Your task to perform on an android device: turn off translation in the chrome app Image 0: 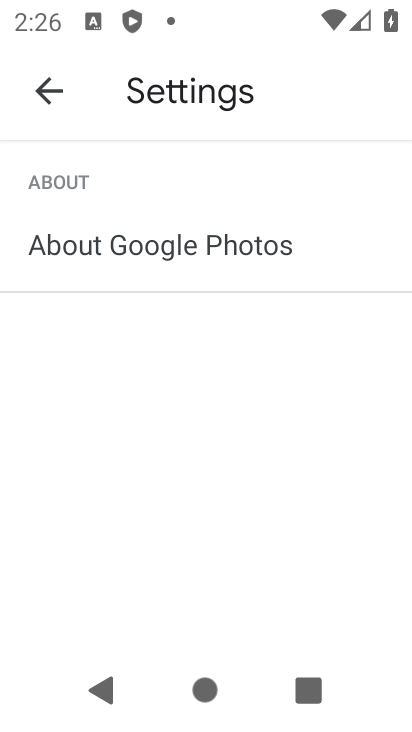
Step 0: press home button
Your task to perform on an android device: turn off translation in the chrome app Image 1: 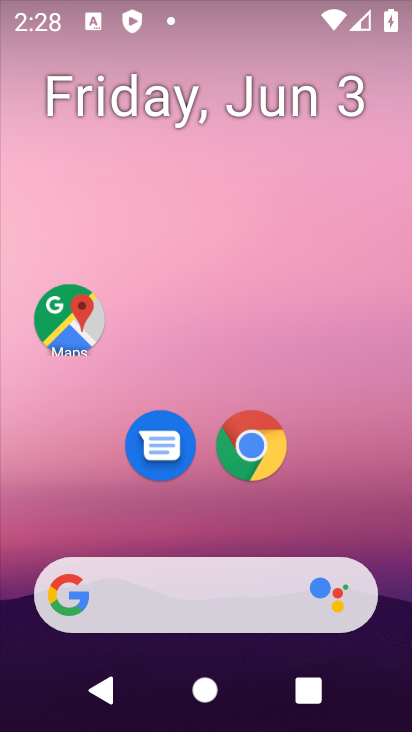
Step 1: click (261, 445)
Your task to perform on an android device: turn off translation in the chrome app Image 2: 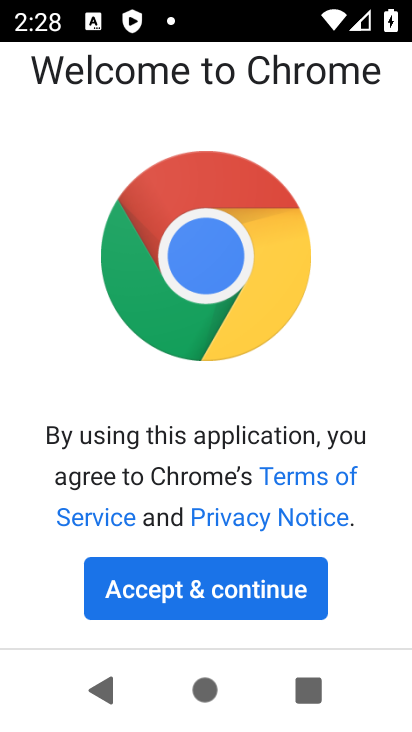
Step 2: click (165, 621)
Your task to perform on an android device: turn off translation in the chrome app Image 3: 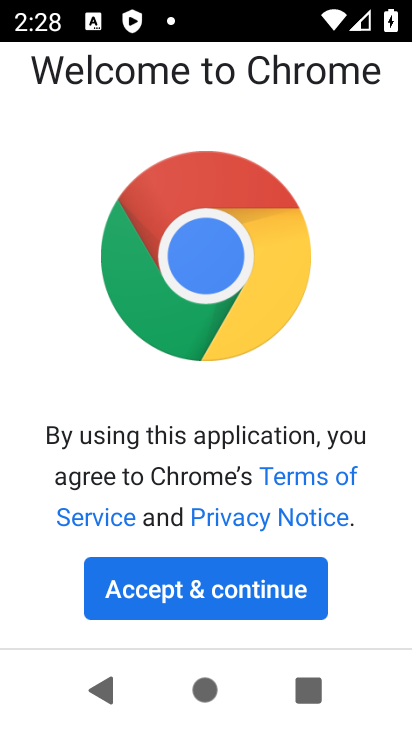
Step 3: click (201, 578)
Your task to perform on an android device: turn off translation in the chrome app Image 4: 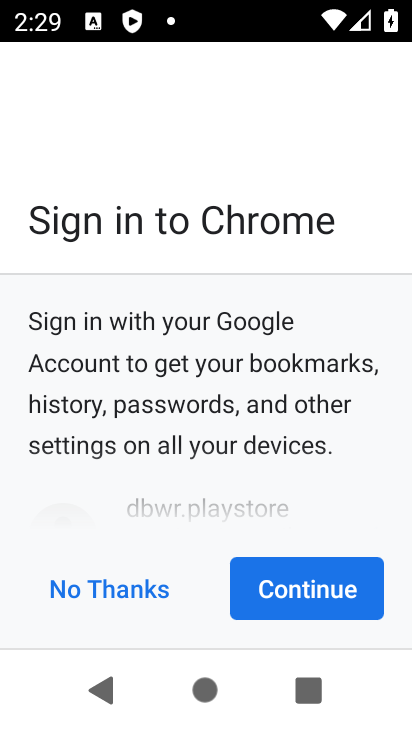
Step 4: click (308, 597)
Your task to perform on an android device: turn off translation in the chrome app Image 5: 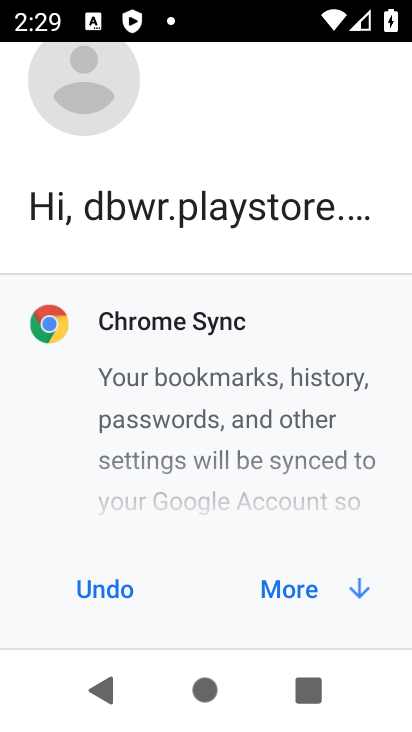
Step 5: click (308, 597)
Your task to perform on an android device: turn off translation in the chrome app Image 6: 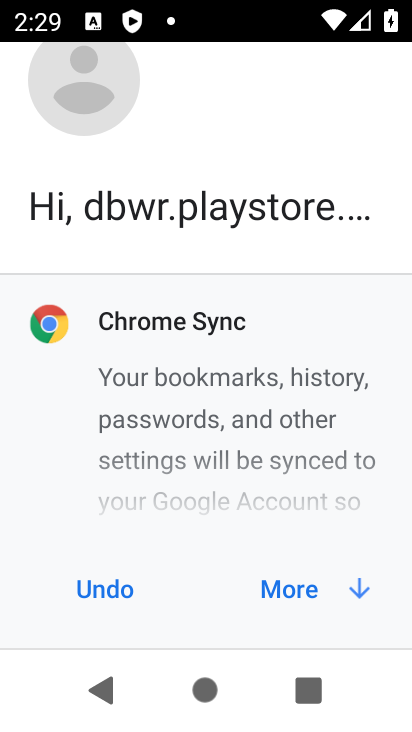
Step 6: click (308, 597)
Your task to perform on an android device: turn off translation in the chrome app Image 7: 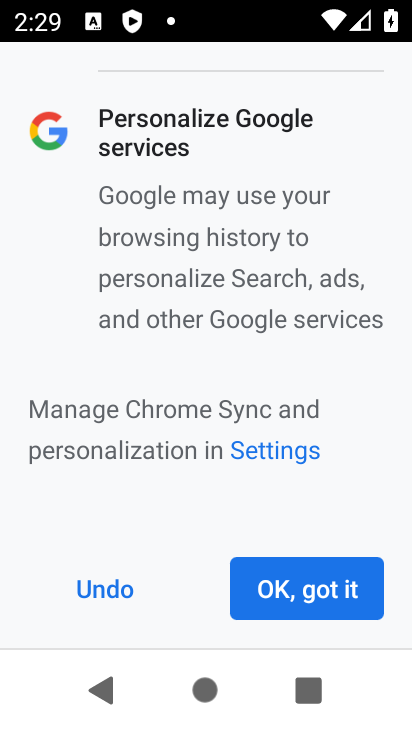
Step 7: click (299, 579)
Your task to perform on an android device: turn off translation in the chrome app Image 8: 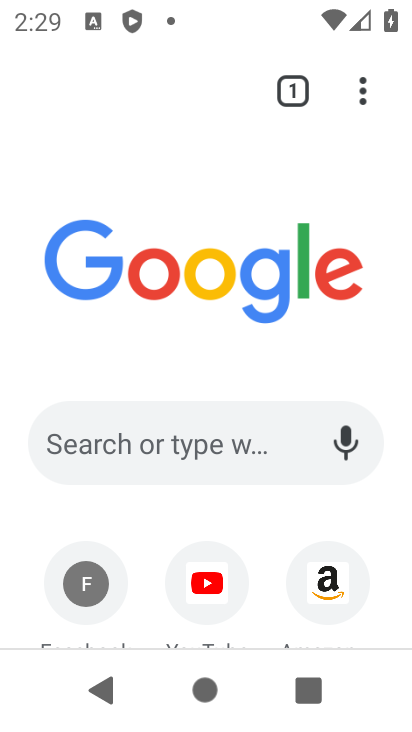
Step 8: click (379, 83)
Your task to perform on an android device: turn off translation in the chrome app Image 9: 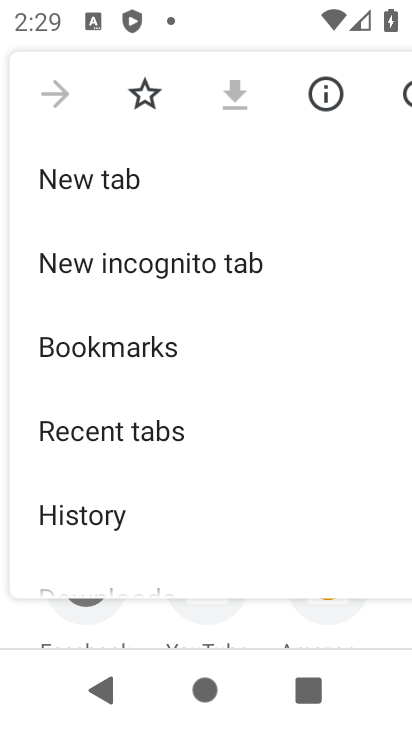
Step 9: drag from (94, 533) to (249, 60)
Your task to perform on an android device: turn off translation in the chrome app Image 10: 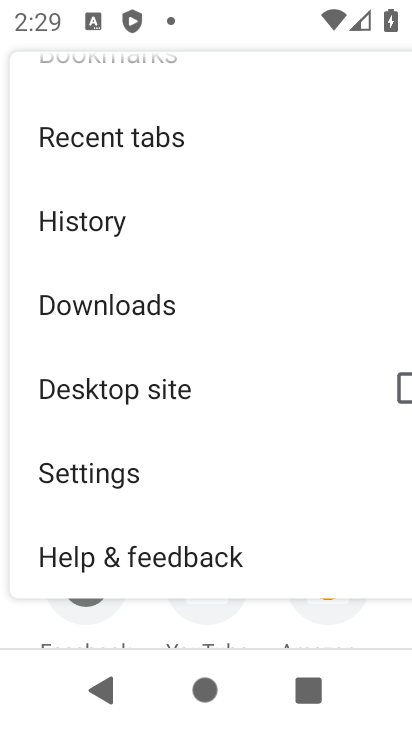
Step 10: click (89, 472)
Your task to perform on an android device: turn off translation in the chrome app Image 11: 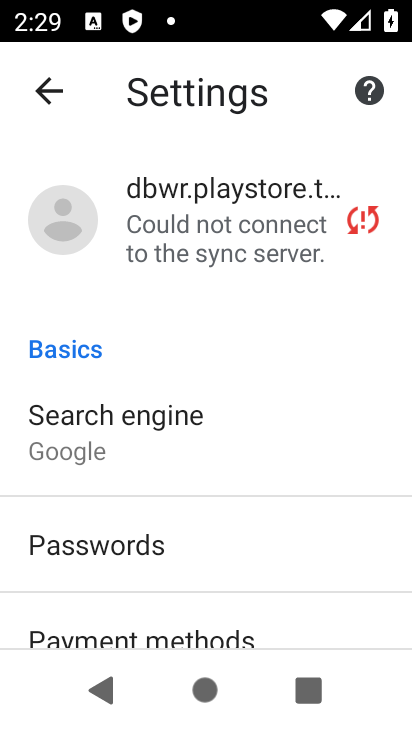
Step 11: drag from (86, 612) to (180, 137)
Your task to perform on an android device: turn off translation in the chrome app Image 12: 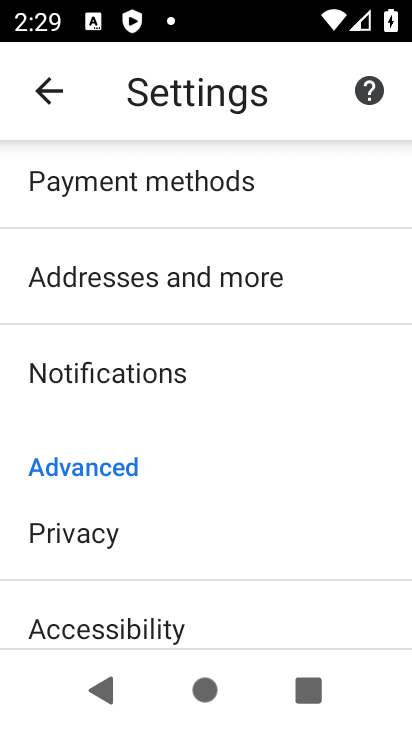
Step 12: drag from (141, 581) to (245, 244)
Your task to perform on an android device: turn off translation in the chrome app Image 13: 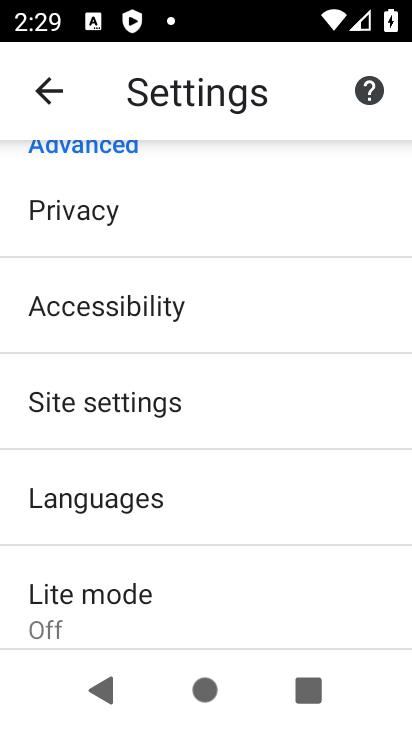
Step 13: click (146, 491)
Your task to perform on an android device: turn off translation in the chrome app Image 14: 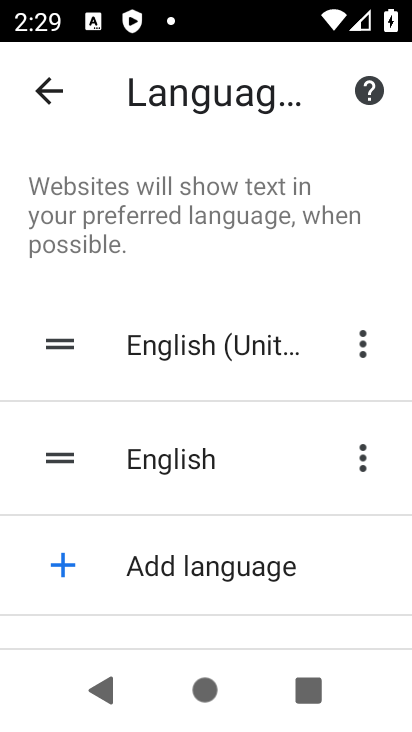
Step 14: drag from (99, 614) to (171, 220)
Your task to perform on an android device: turn off translation in the chrome app Image 15: 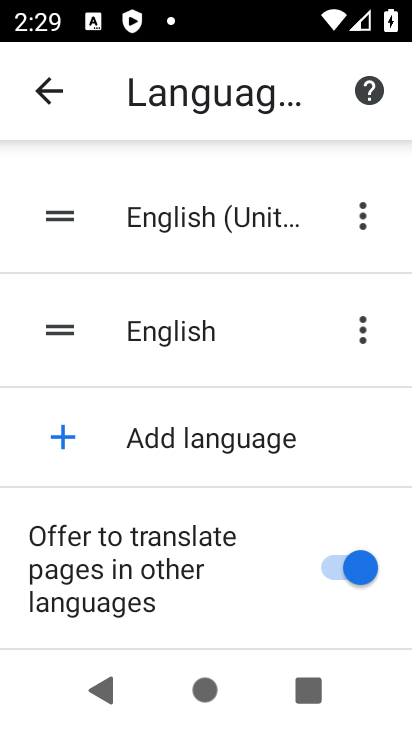
Step 15: click (343, 570)
Your task to perform on an android device: turn off translation in the chrome app Image 16: 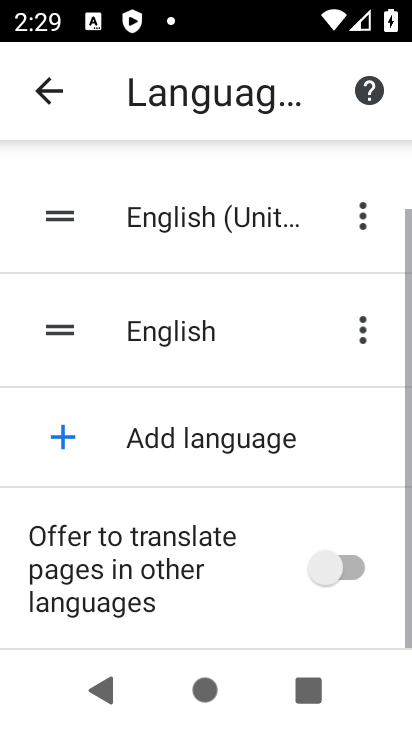
Step 16: task complete